Your task to perform on an android device: search for starred emails in the gmail app Image 0: 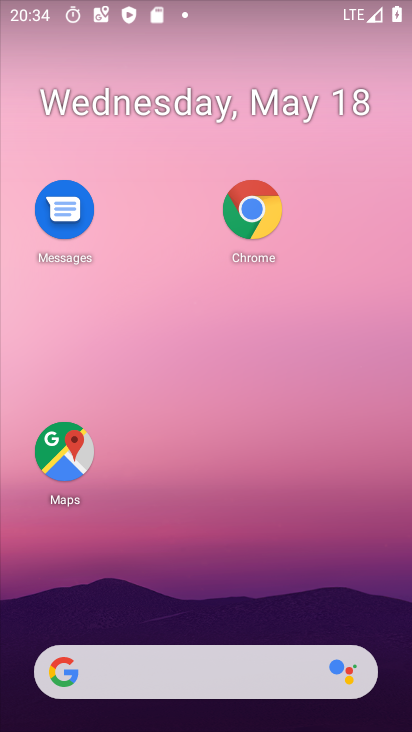
Step 0: drag from (209, 618) to (205, 15)
Your task to perform on an android device: search for starred emails in the gmail app Image 1: 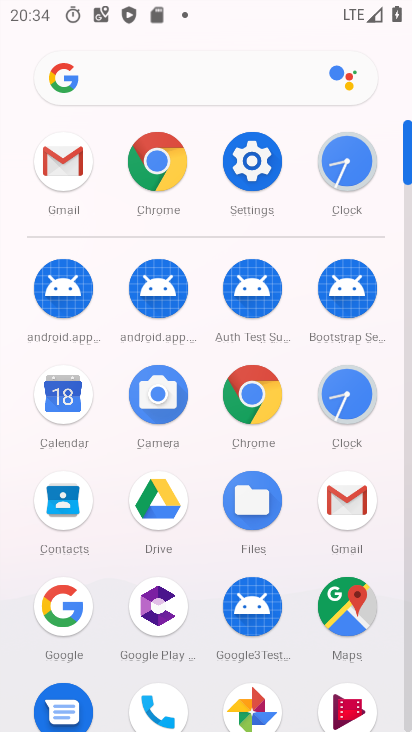
Step 1: click (66, 165)
Your task to perform on an android device: search for starred emails in the gmail app Image 2: 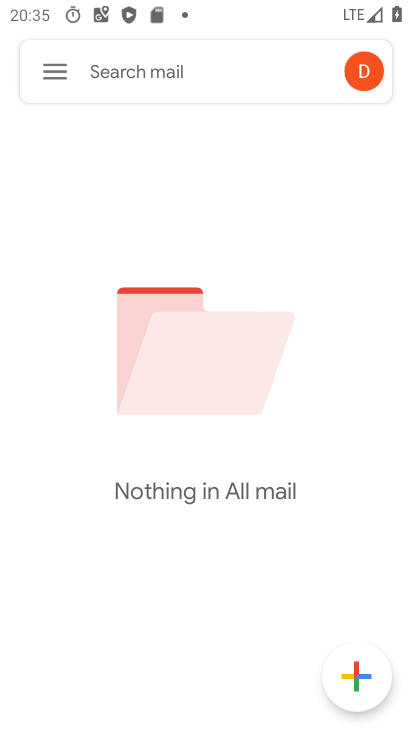
Step 2: click (59, 95)
Your task to perform on an android device: search for starred emails in the gmail app Image 3: 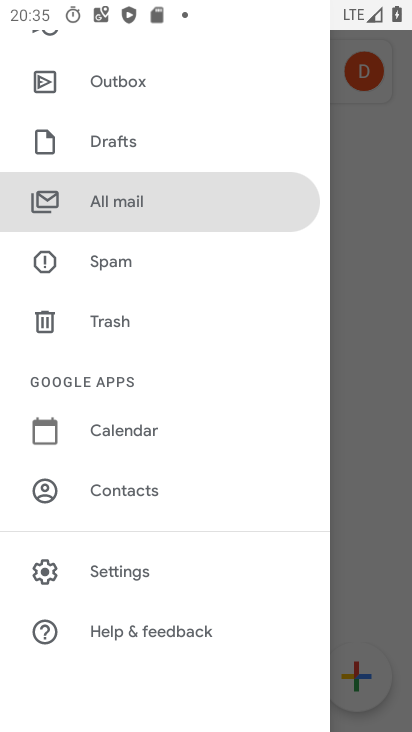
Step 3: drag from (59, 95) to (101, 612)
Your task to perform on an android device: search for starred emails in the gmail app Image 4: 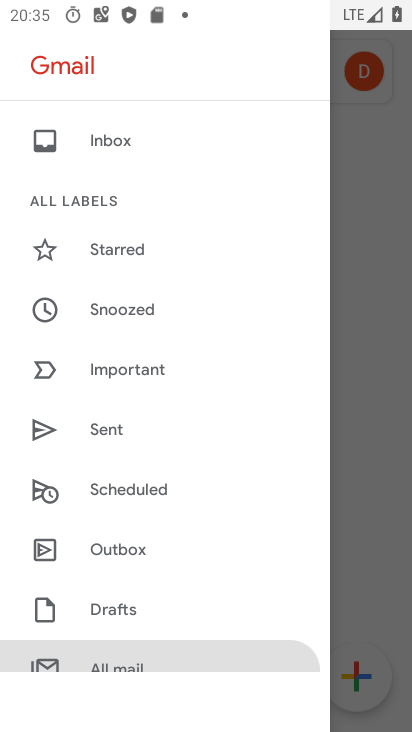
Step 4: click (128, 243)
Your task to perform on an android device: search for starred emails in the gmail app Image 5: 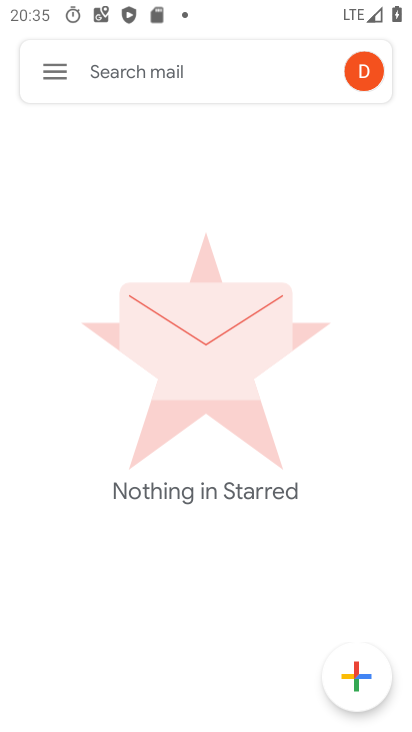
Step 5: task complete